Your task to perform on an android device: Go to Google maps Image 0: 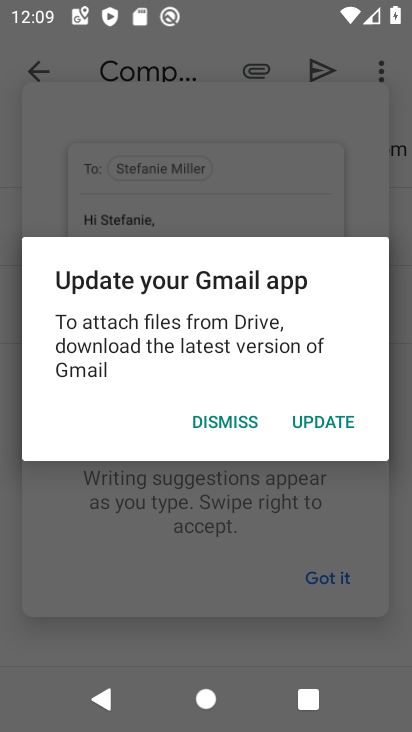
Step 0: press home button
Your task to perform on an android device: Go to Google maps Image 1: 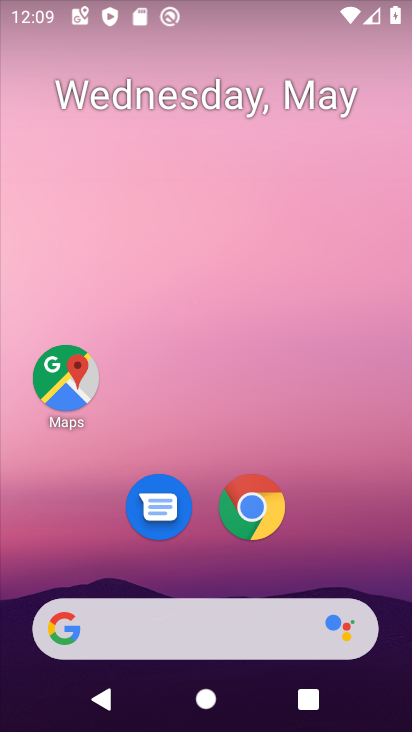
Step 1: click (54, 374)
Your task to perform on an android device: Go to Google maps Image 2: 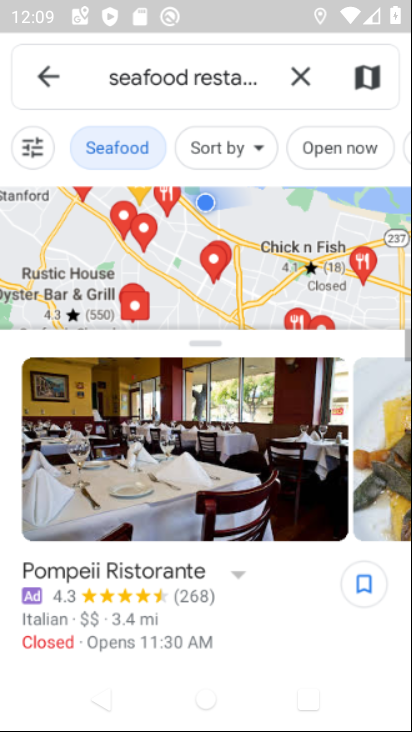
Step 2: click (309, 76)
Your task to perform on an android device: Go to Google maps Image 3: 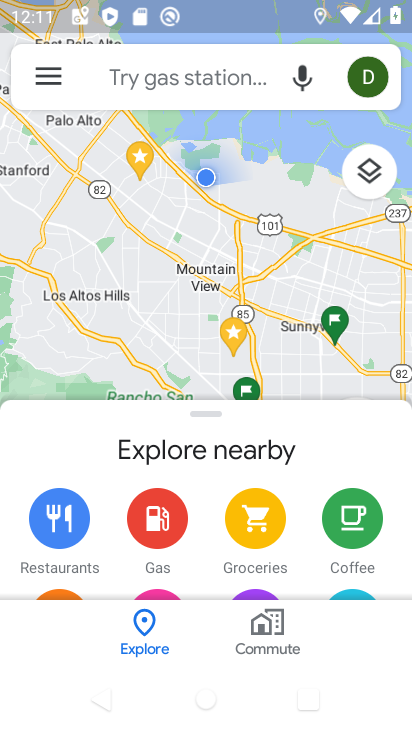
Step 3: task complete